Your task to perform on an android device: Clear the cart on costco. Add "bose soundlink" to the cart on costco, then select checkout. Image 0: 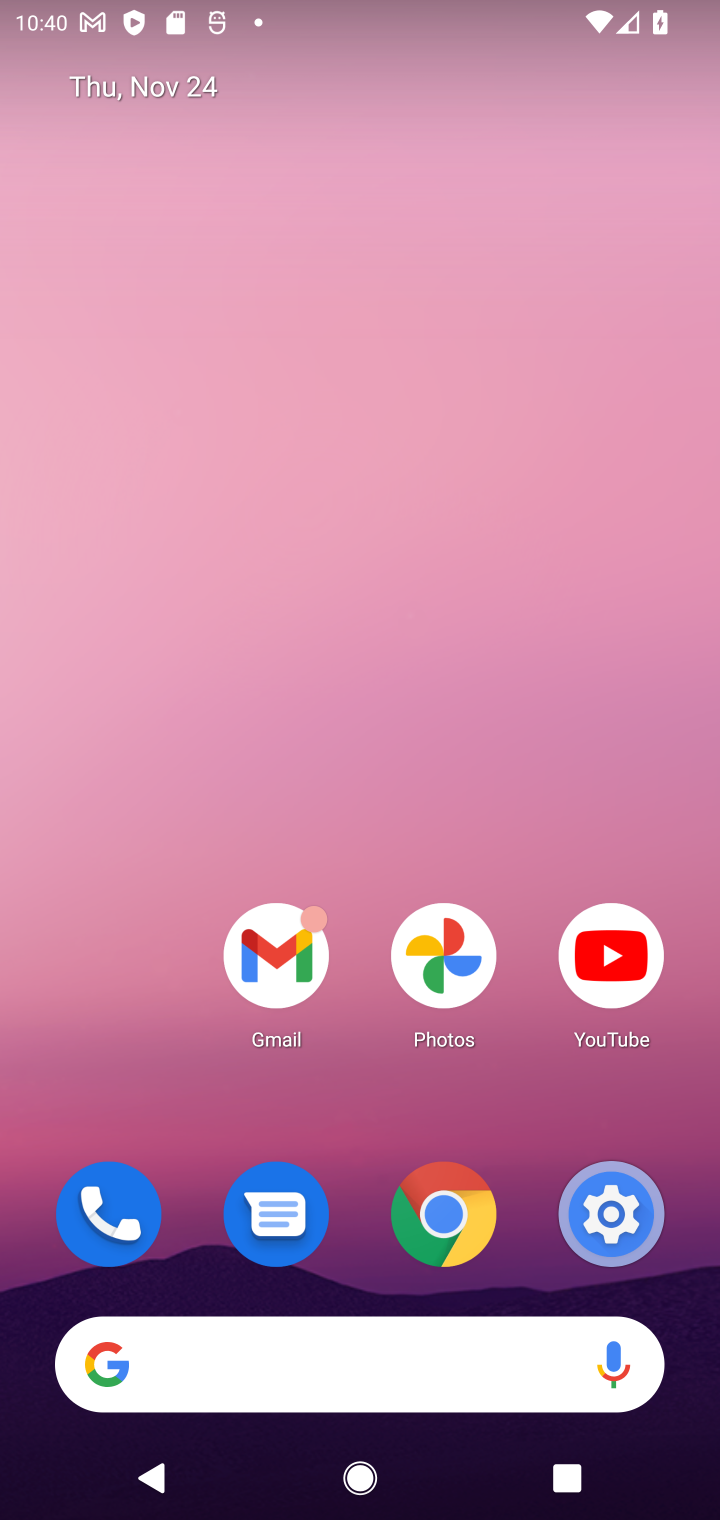
Step 0: click (304, 1390)
Your task to perform on an android device: Clear the cart on costco. Add "bose soundlink" to the cart on costco, then select checkout. Image 1: 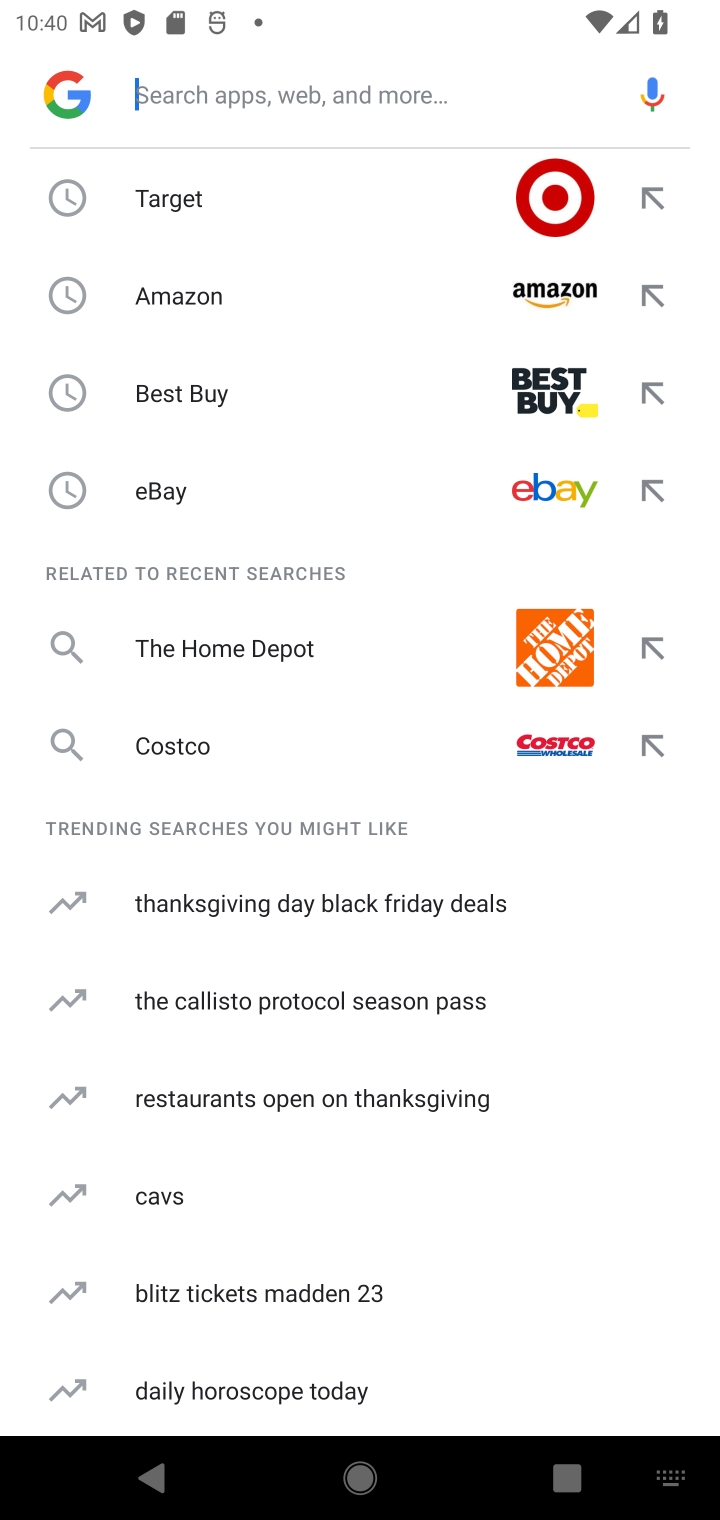
Step 1: click (279, 746)
Your task to perform on an android device: Clear the cart on costco. Add "bose soundlink" to the cart on costco, then select checkout. Image 2: 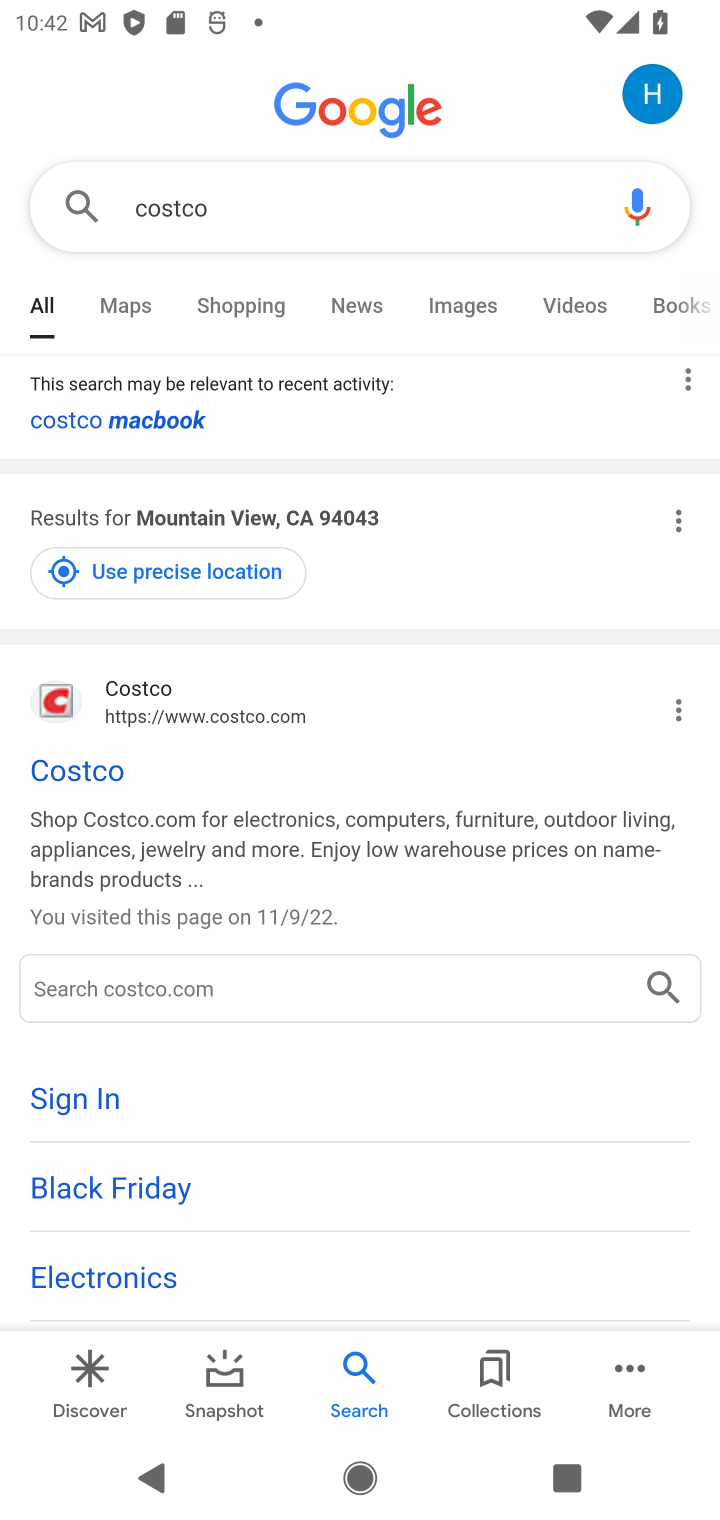
Step 2: task complete